Your task to perform on an android device: turn off sleep mode Image 0: 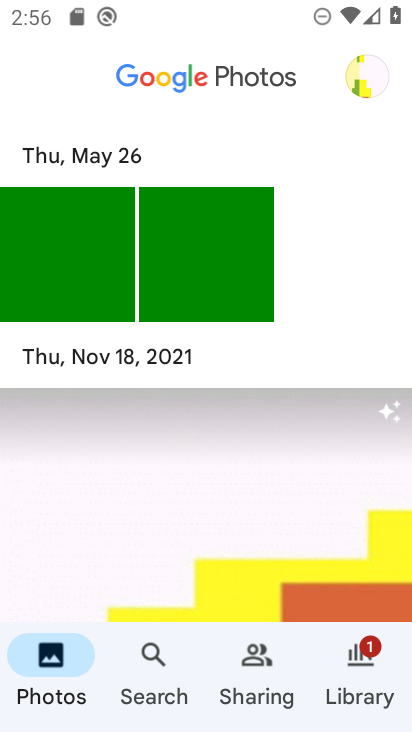
Step 0: press home button
Your task to perform on an android device: turn off sleep mode Image 1: 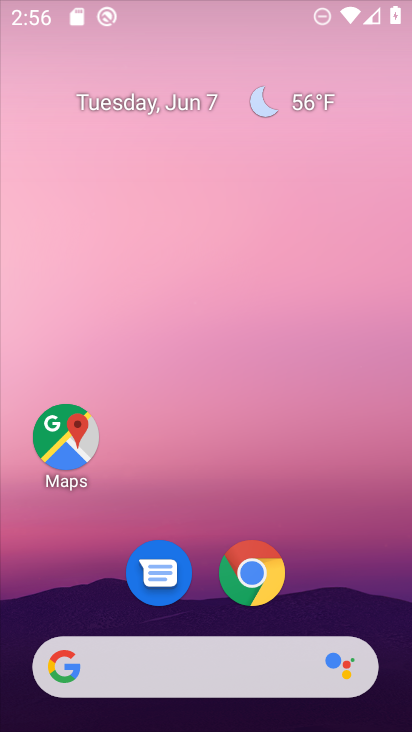
Step 1: drag from (337, 584) to (374, 52)
Your task to perform on an android device: turn off sleep mode Image 2: 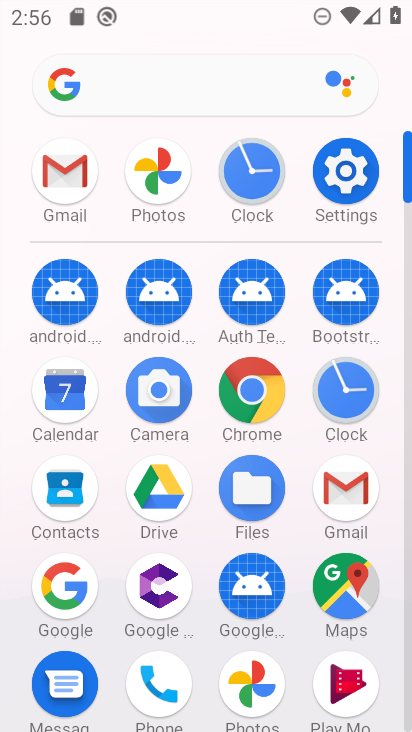
Step 2: click (351, 185)
Your task to perform on an android device: turn off sleep mode Image 3: 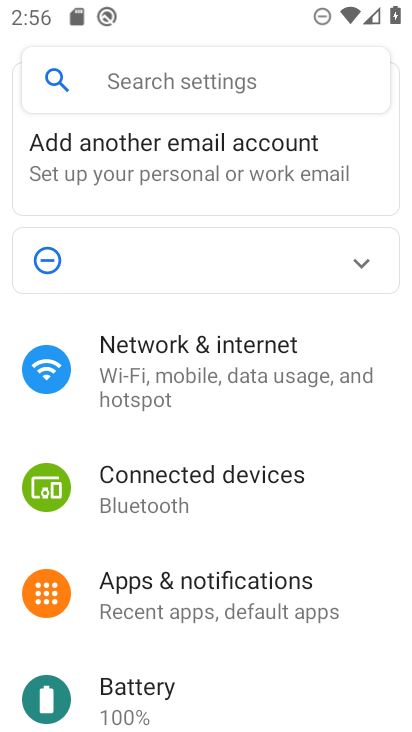
Step 3: task complete